Your task to perform on an android device: Go to internet settings Image 0: 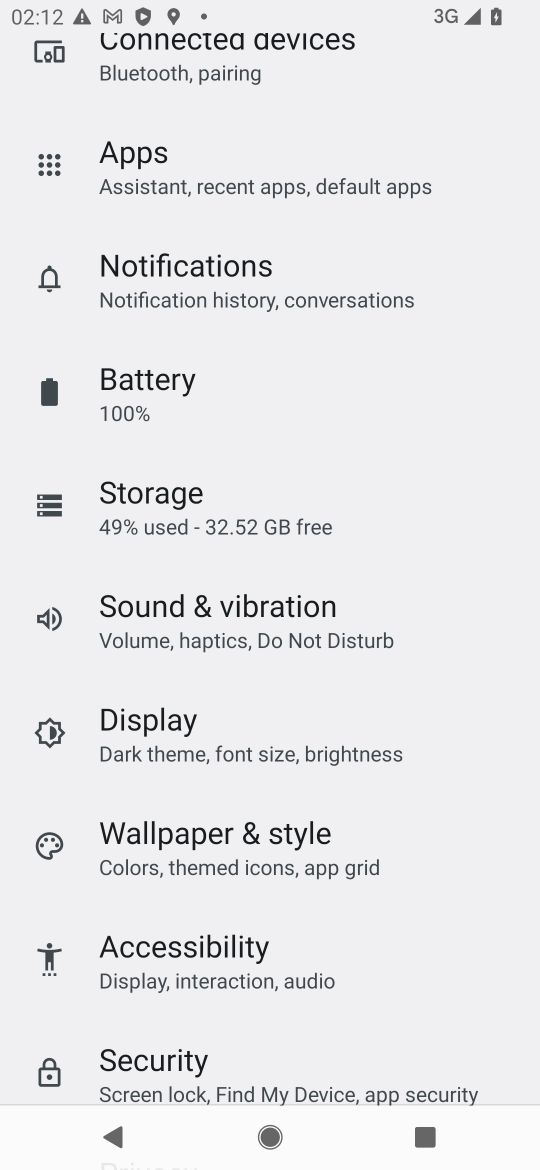
Step 0: drag from (332, 267) to (497, 886)
Your task to perform on an android device: Go to internet settings Image 1: 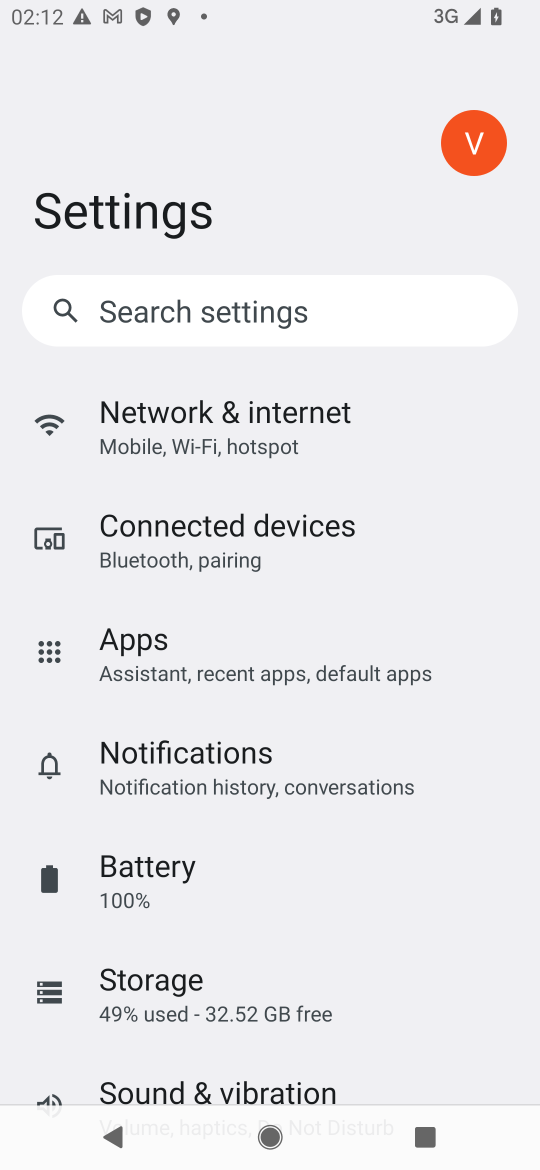
Step 1: click (279, 401)
Your task to perform on an android device: Go to internet settings Image 2: 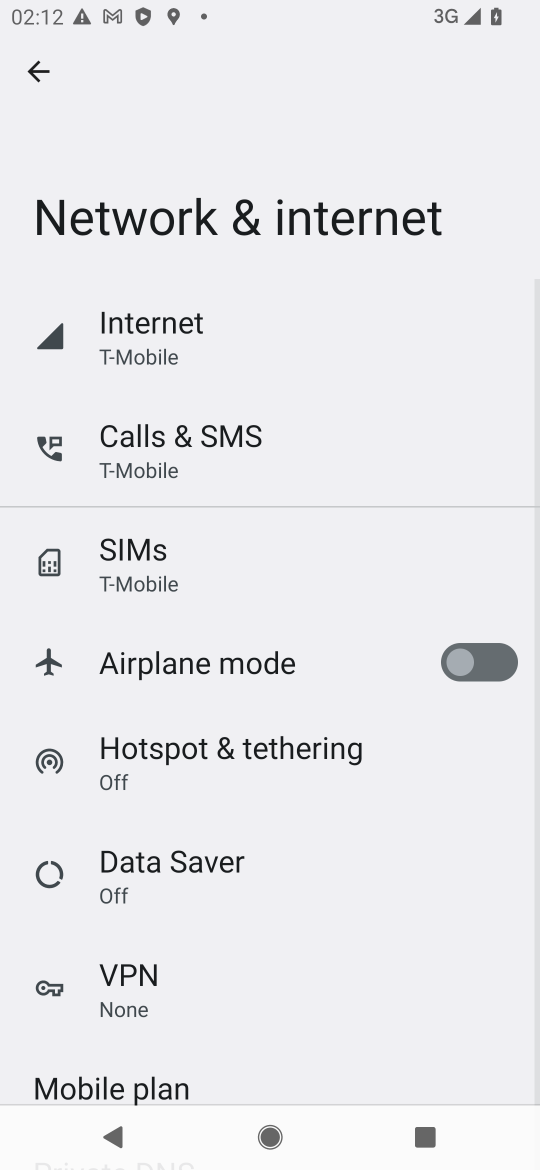
Step 2: click (160, 321)
Your task to perform on an android device: Go to internet settings Image 3: 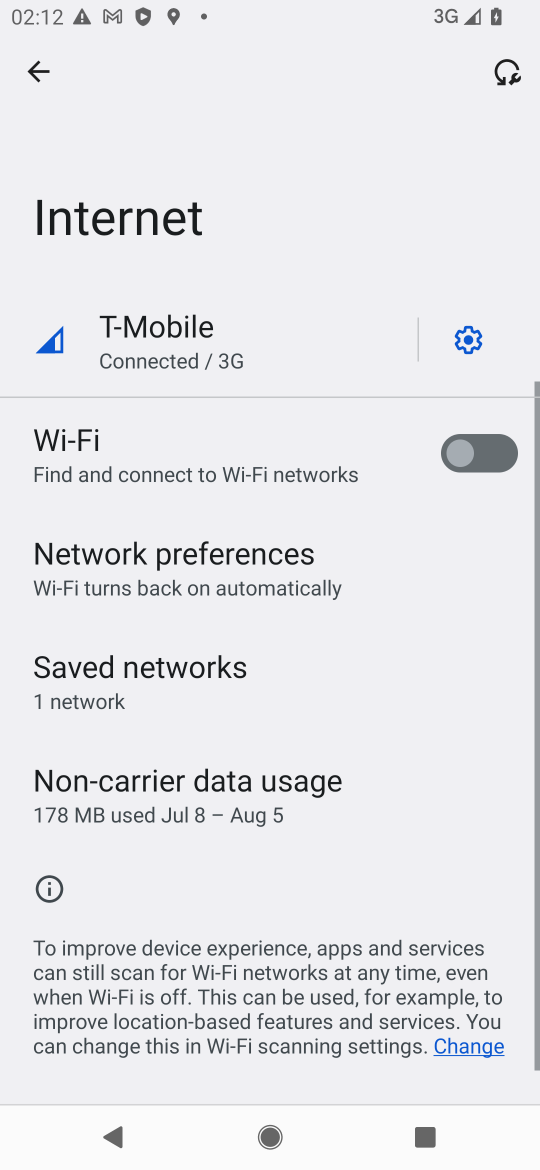
Step 3: task complete